Your task to perform on an android device: refresh tabs in the chrome app Image 0: 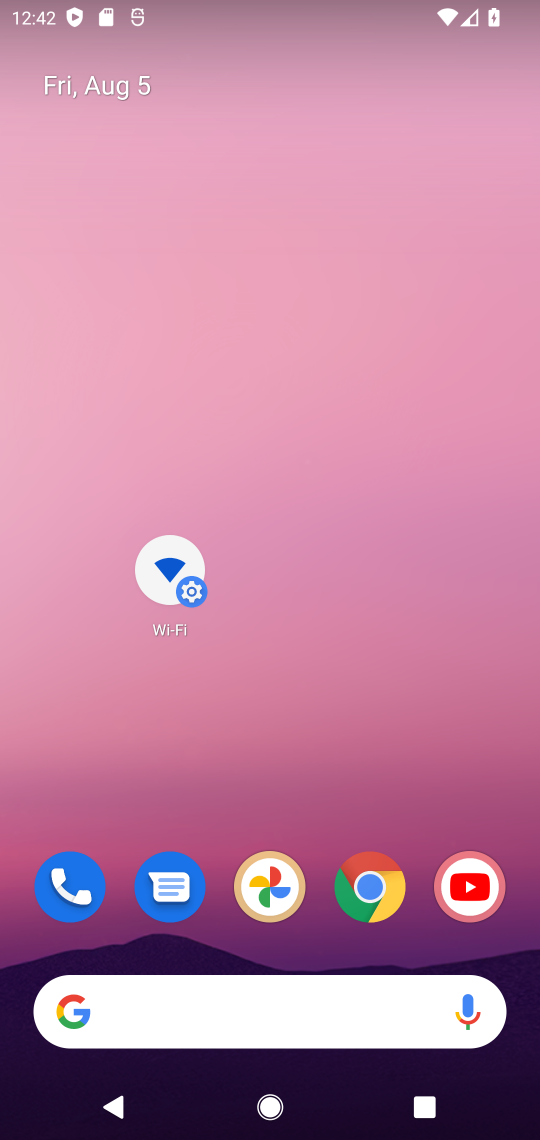
Step 0: click (365, 872)
Your task to perform on an android device: refresh tabs in the chrome app Image 1: 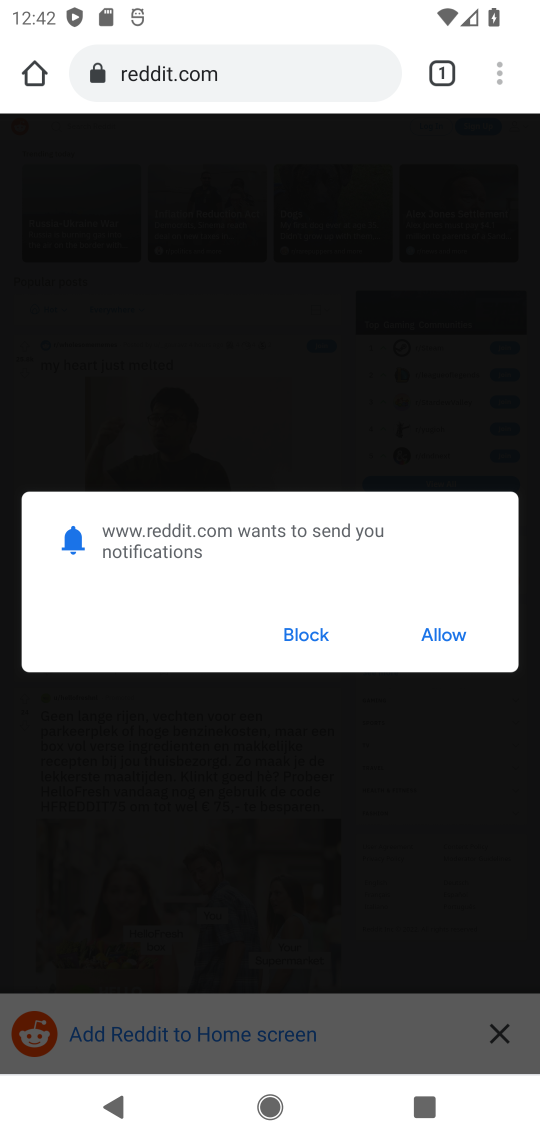
Step 1: click (494, 69)
Your task to perform on an android device: refresh tabs in the chrome app Image 2: 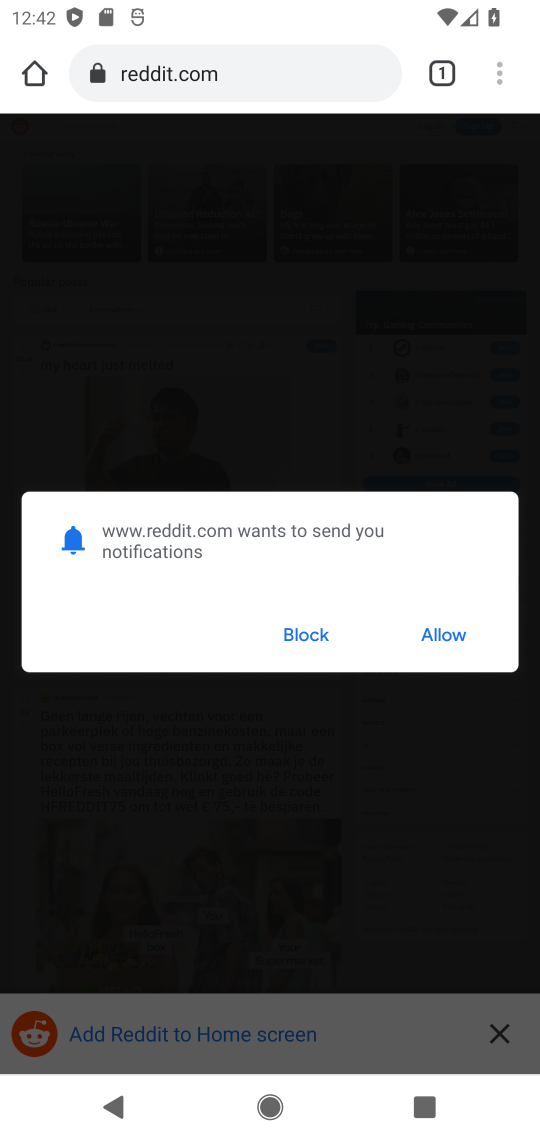
Step 2: click (479, 81)
Your task to perform on an android device: refresh tabs in the chrome app Image 3: 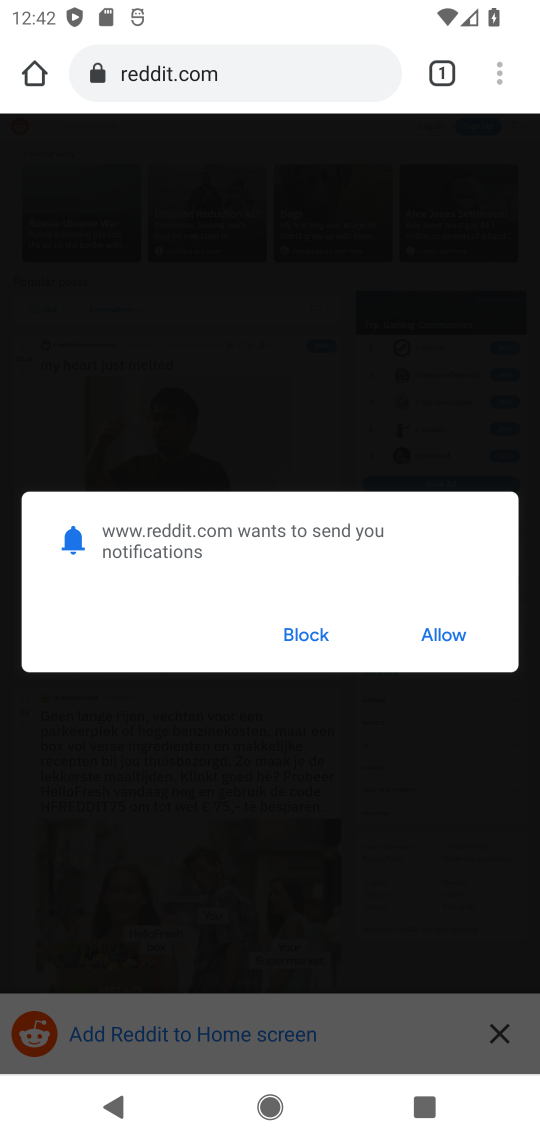
Step 3: click (299, 641)
Your task to perform on an android device: refresh tabs in the chrome app Image 4: 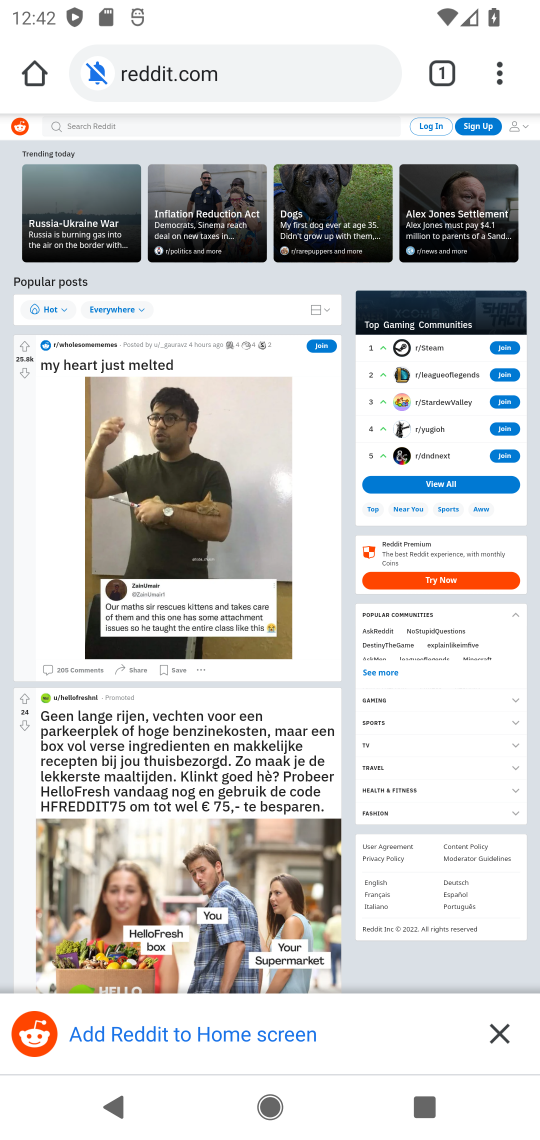
Step 4: click (500, 80)
Your task to perform on an android device: refresh tabs in the chrome app Image 5: 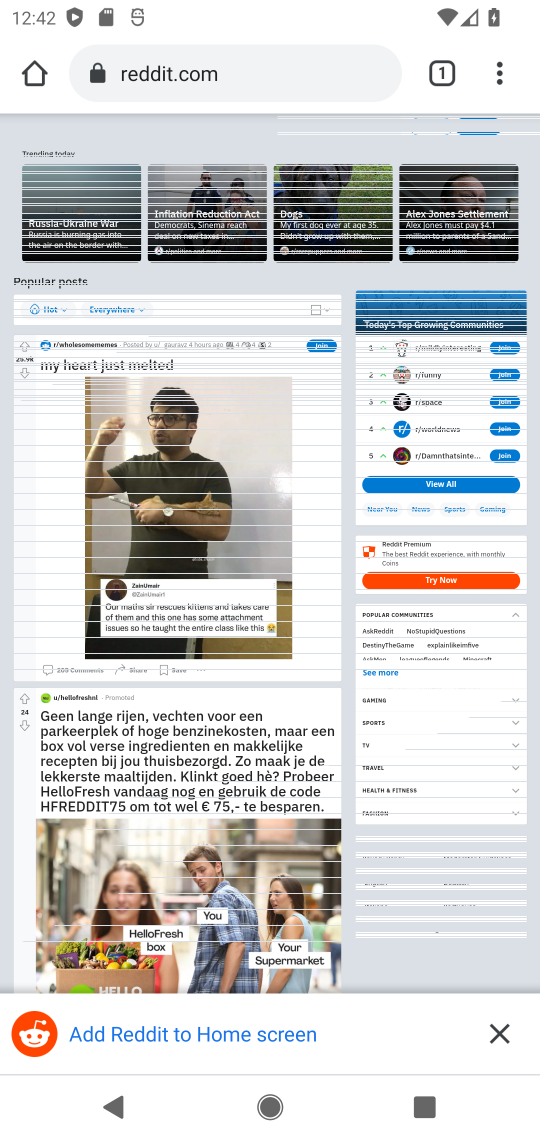
Step 5: task complete